Your task to perform on an android device: Go to internet settings Image 0: 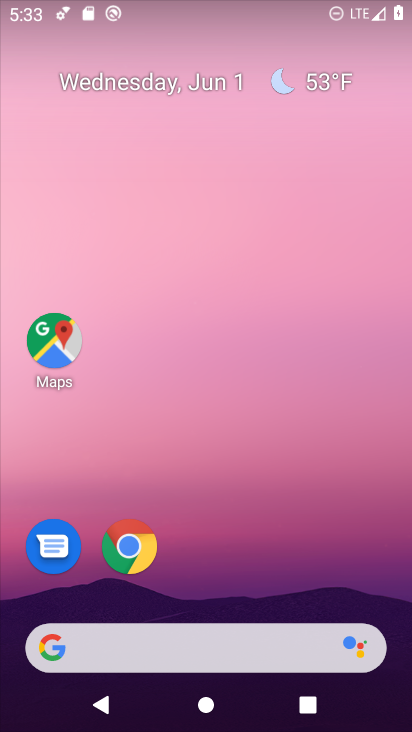
Step 0: drag from (317, 520) to (196, 5)
Your task to perform on an android device: Go to internet settings Image 1: 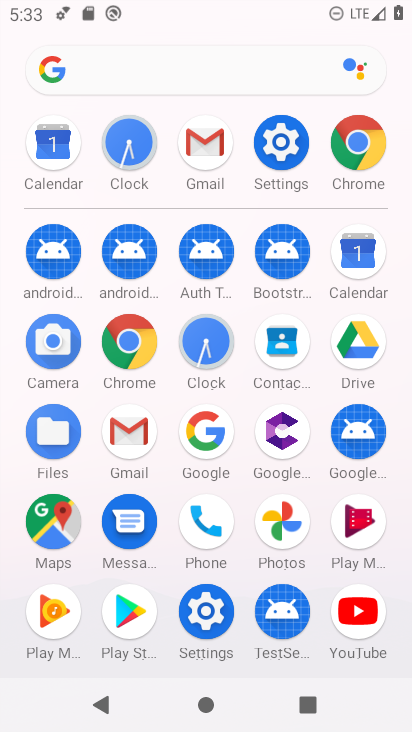
Step 1: drag from (8, 549) to (22, 277)
Your task to perform on an android device: Go to internet settings Image 2: 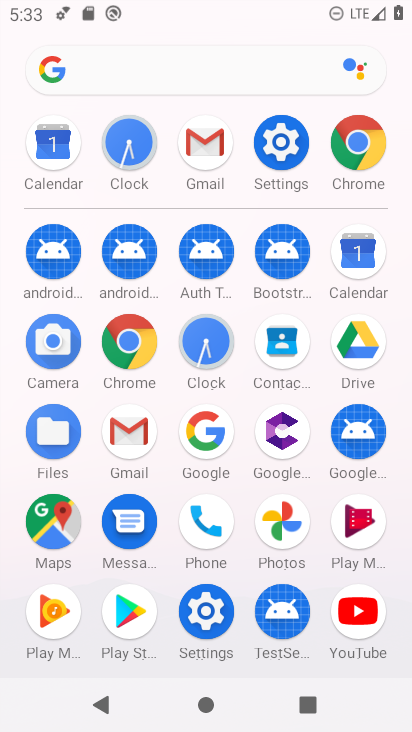
Step 2: click (205, 609)
Your task to perform on an android device: Go to internet settings Image 3: 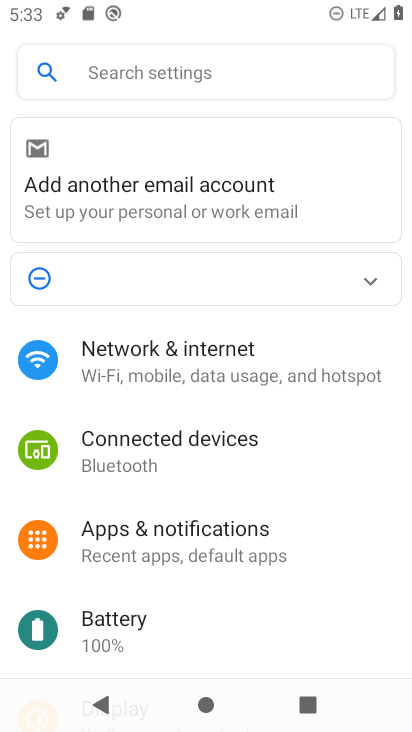
Step 3: click (187, 366)
Your task to perform on an android device: Go to internet settings Image 4: 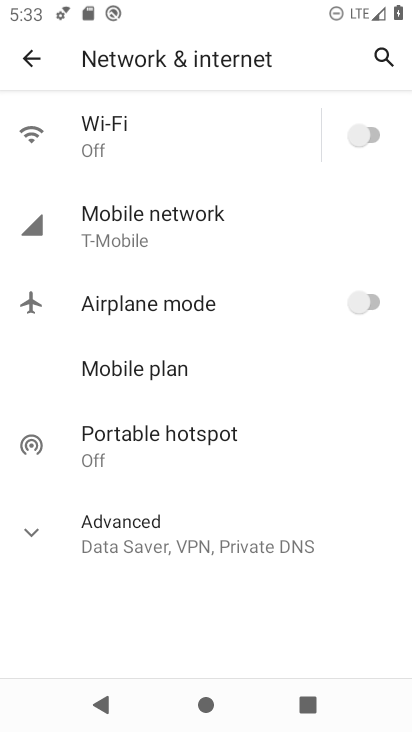
Step 4: click (23, 540)
Your task to perform on an android device: Go to internet settings Image 5: 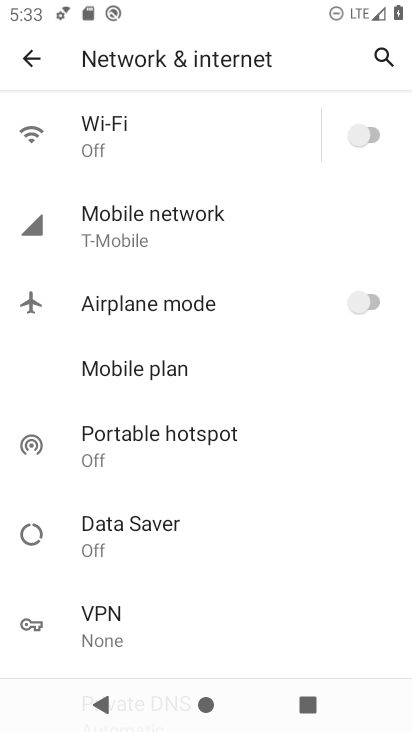
Step 5: task complete